Your task to perform on an android device: Open Android settings Image 0: 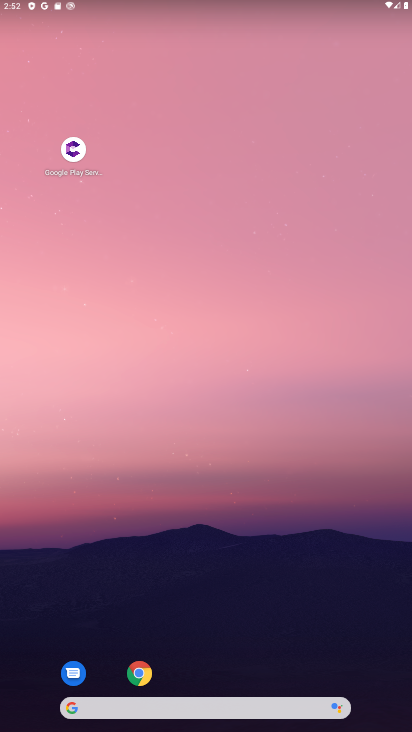
Step 0: drag from (286, 519) to (337, 187)
Your task to perform on an android device: Open Android settings Image 1: 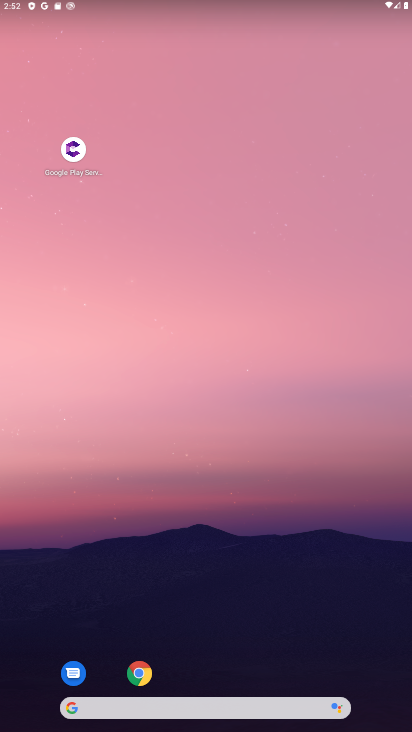
Step 1: drag from (332, 547) to (361, 117)
Your task to perform on an android device: Open Android settings Image 2: 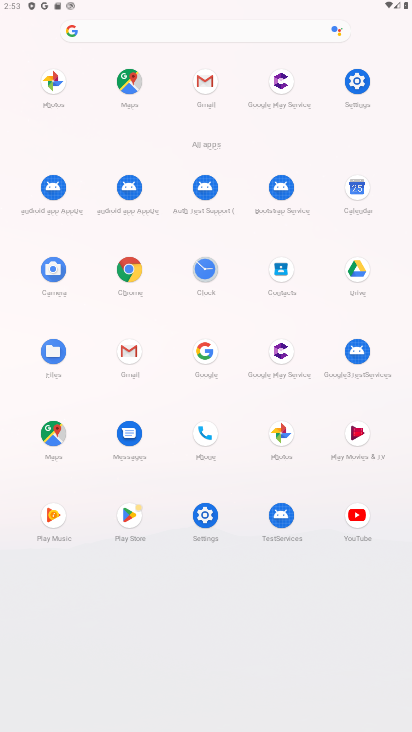
Step 2: click (352, 92)
Your task to perform on an android device: Open Android settings Image 3: 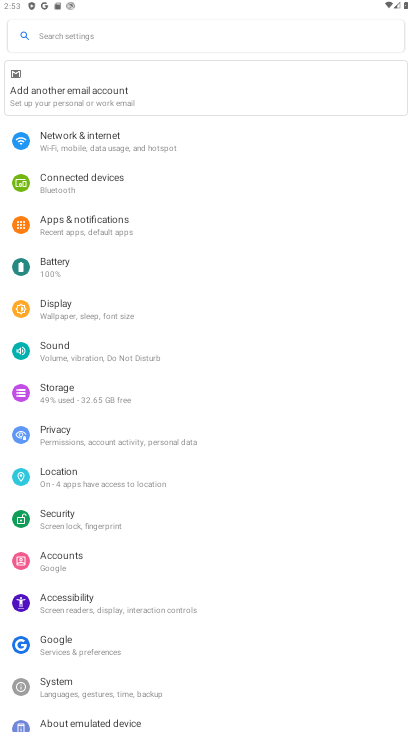
Step 3: task complete